Your task to perform on an android device: What's on my calendar tomorrow? Image 0: 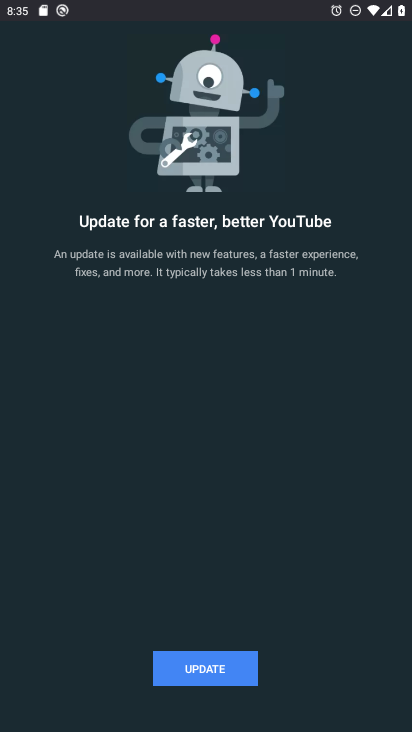
Step 0: press home button
Your task to perform on an android device: What's on my calendar tomorrow? Image 1: 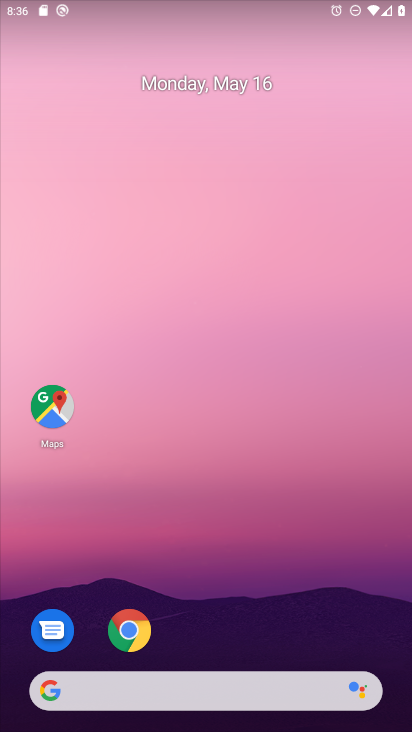
Step 1: drag from (212, 617) to (170, 169)
Your task to perform on an android device: What's on my calendar tomorrow? Image 2: 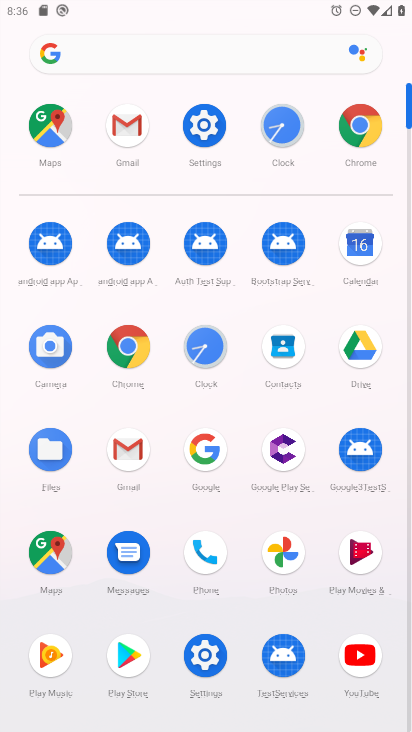
Step 2: click (345, 257)
Your task to perform on an android device: What's on my calendar tomorrow? Image 3: 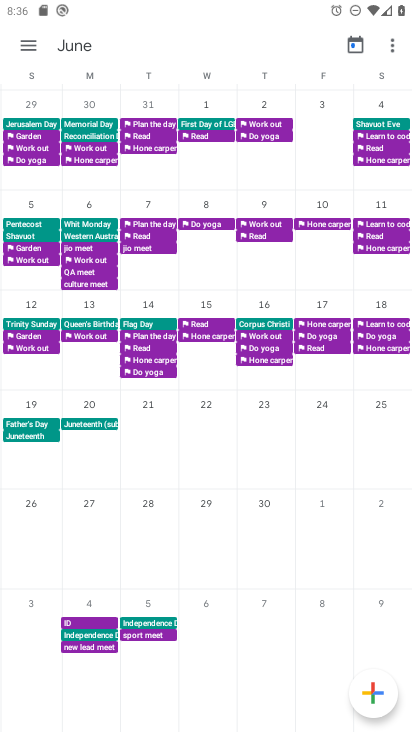
Step 3: click (18, 44)
Your task to perform on an android device: What's on my calendar tomorrow? Image 4: 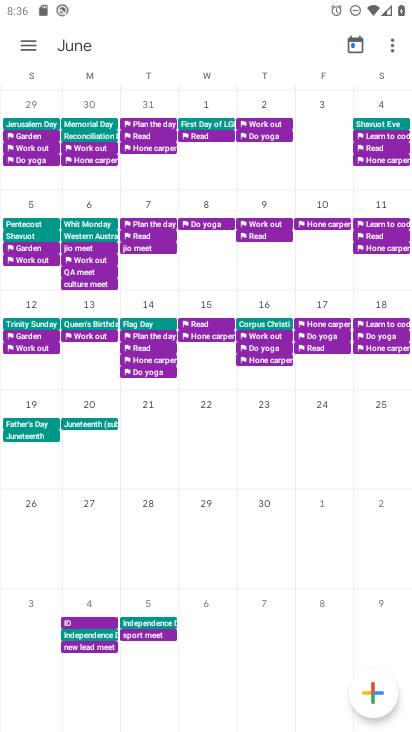
Step 4: click (33, 36)
Your task to perform on an android device: What's on my calendar tomorrow? Image 5: 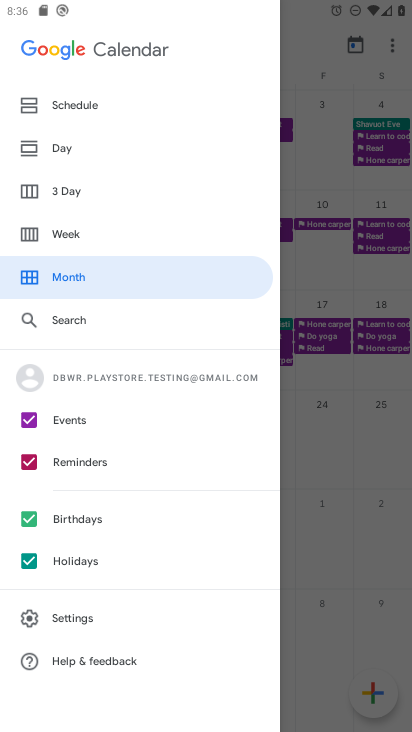
Step 5: click (146, 281)
Your task to perform on an android device: What's on my calendar tomorrow? Image 6: 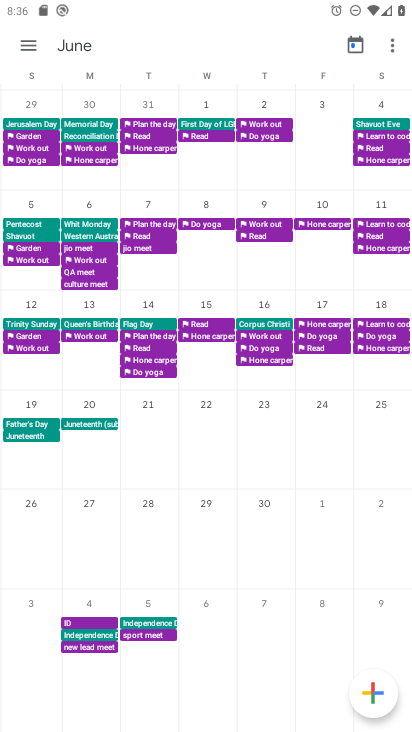
Step 6: click (28, 43)
Your task to perform on an android device: What's on my calendar tomorrow? Image 7: 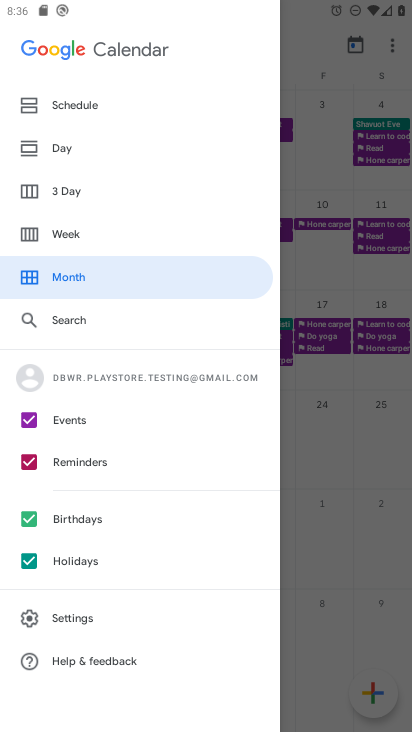
Step 7: click (57, 107)
Your task to perform on an android device: What's on my calendar tomorrow? Image 8: 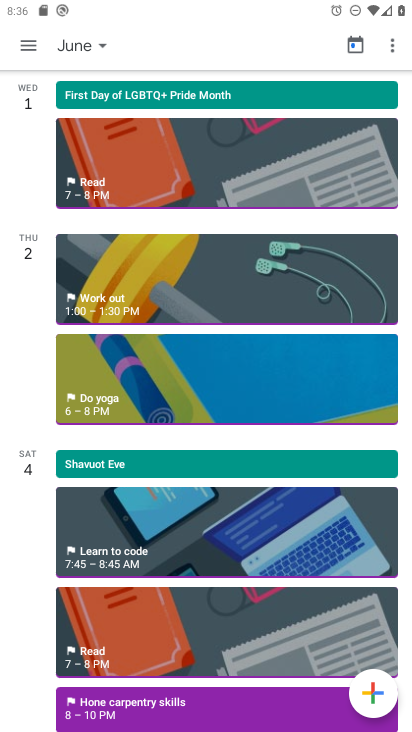
Step 8: drag from (196, 398) to (206, 178)
Your task to perform on an android device: What's on my calendar tomorrow? Image 9: 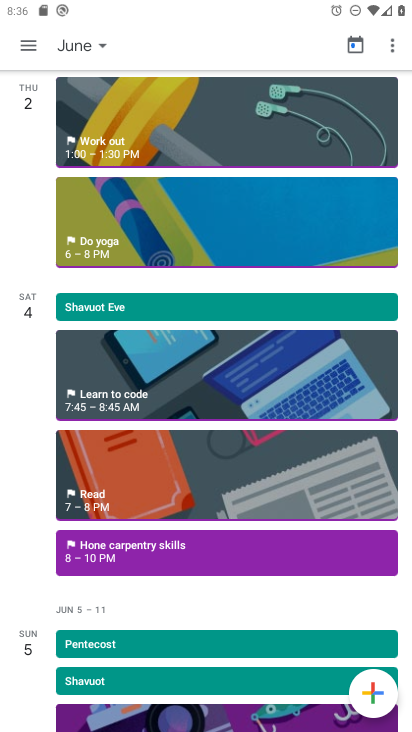
Step 9: click (84, 53)
Your task to perform on an android device: What's on my calendar tomorrow? Image 10: 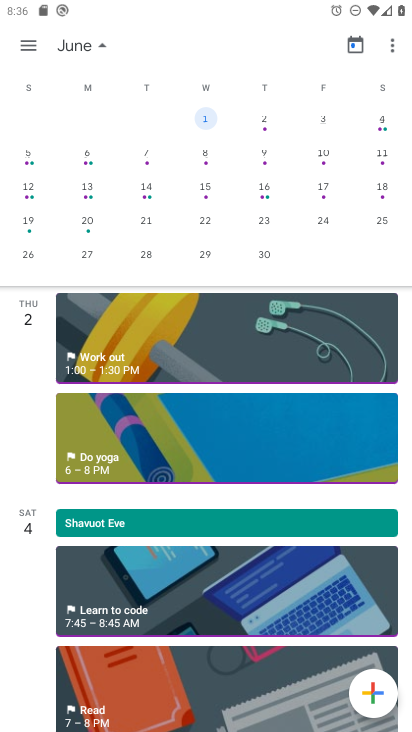
Step 10: drag from (115, 115) to (385, 91)
Your task to perform on an android device: What's on my calendar tomorrow? Image 11: 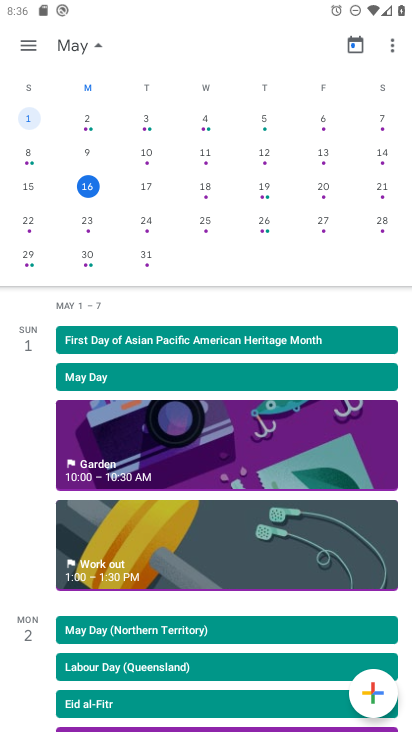
Step 11: click (152, 182)
Your task to perform on an android device: What's on my calendar tomorrow? Image 12: 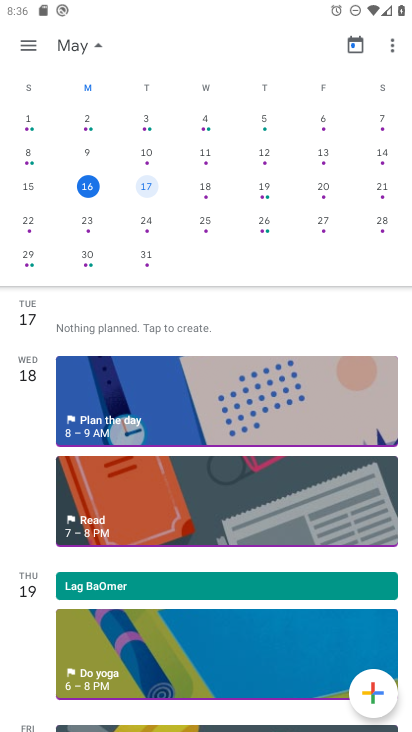
Step 12: task complete